Your task to perform on an android device: turn on improve location accuracy Image 0: 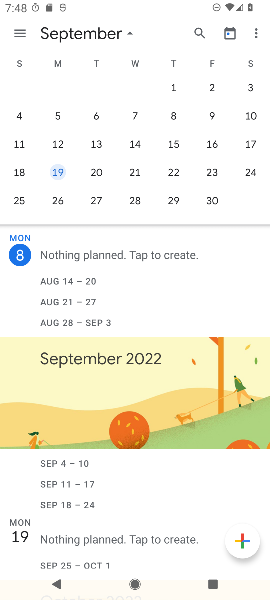
Step 0: press home button
Your task to perform on an android device: turn on improve location accuracy Image 1: 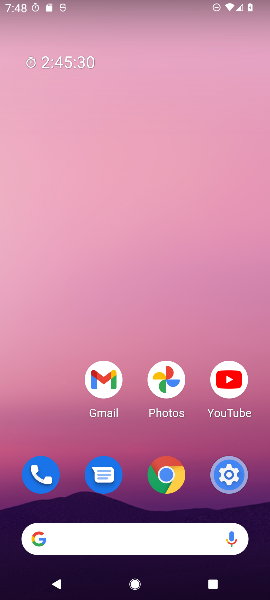
Step 1: drag from (68, 436) to (64, 178)
Your task to perform on an android device: turn on improve location accuracy Image 2: 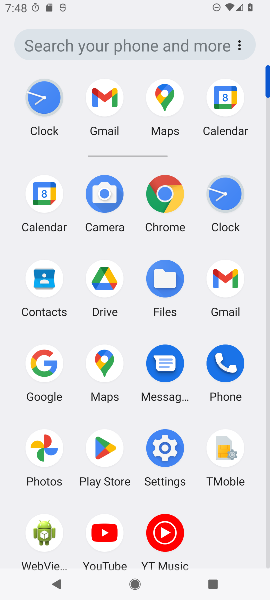
Step 2: click (167, 449)
Your task to perform on an android device: turn on improve location accuracy Image 3: 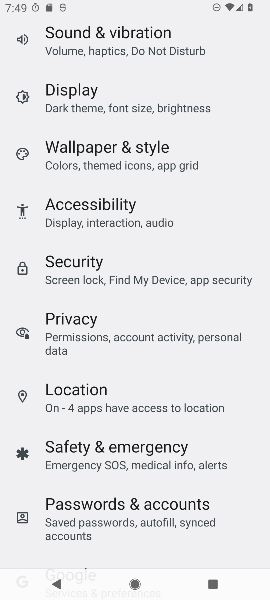
Step 3: drag from (255, 304) to (257, 372)
Your task to perform on an android device: turn on improve location accuracy Image 4: 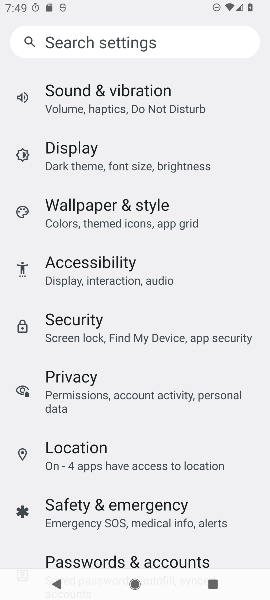
Step 4: drag from (254, 246) to (246, 310)
Your task to perform on an android device: turn on improve location accuracy Image 5: 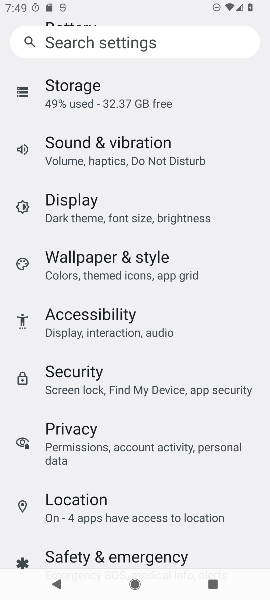
Step 5: drag from (256, 188) to (252, 292)
Your task to perform on an android device: turn on improve location accuracy Image 6: 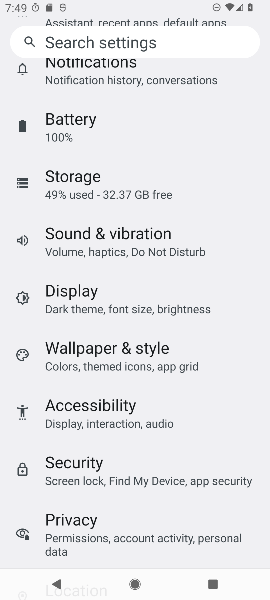
Step 6: drag from (244, 144) to (242, 249)
Your task to perform on an android device: turn on improve location accuracy Image 7: 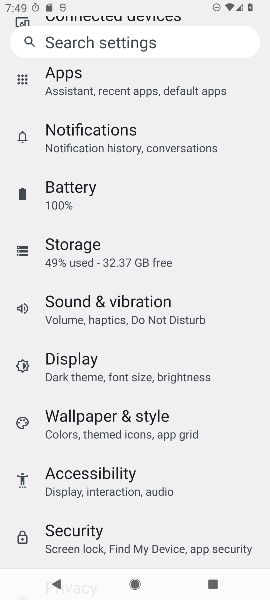
Step 7: drag from (243, 157) to (243, 275)
Your task to perform on an android device: turn on improve location accuracy Image 8: 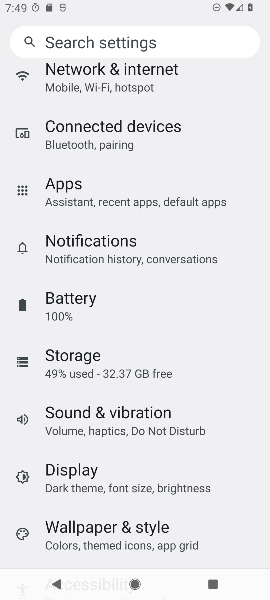
Step 8: drag from (247, 167) to (237, 304)
Your task to perform on an android device: turn on improve location accuracy Image 9: 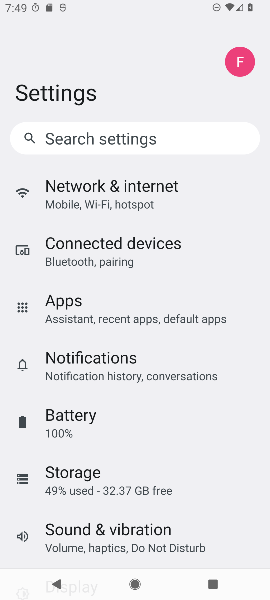
Step 9: drag from (232, 391) to (240, 319)
Your task to perform on an android device: turn on improve location accuracy Image 10: 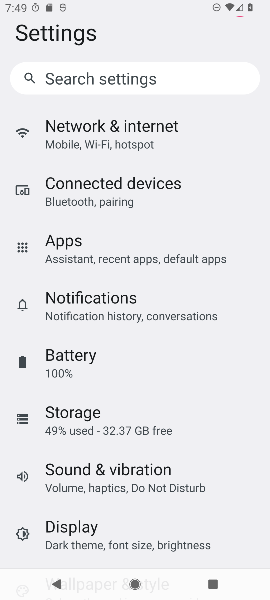
Step 10: drag from (236, 418) to (242, 297)
Your task to perform on an android device: turn on improve location accuracy Image 11: 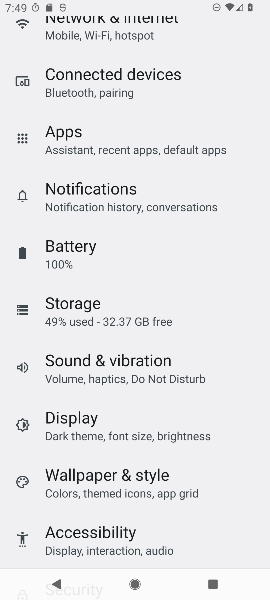
Step 11: drag from (233, 425) to (240, 313)
Your task to perform on an android device: turn on improve location accuracy Image 12: 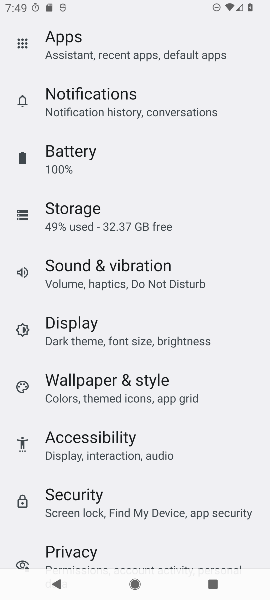
Step 12: drag from (226, 428) to (233, 321)
Your task to perform on an android device: turn on improve location accuracy Image 13: 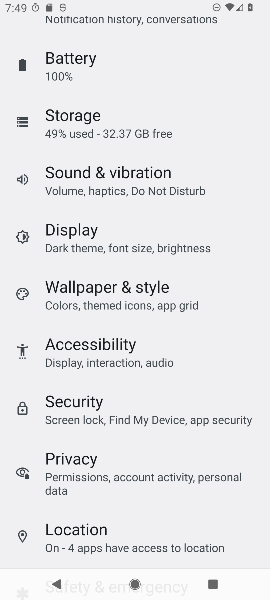
Step 13: drag from (226, 438) to (232, 323)
Your task to perform on an android device: turn on improve location accuracy Image 14: 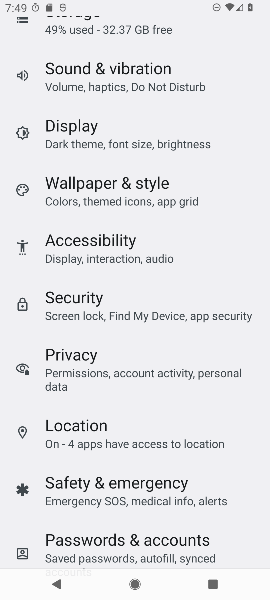
Step 14: drag from (231, 446) to (240, 314)
Your task to perform on an android device: turn on improve location accuracy Image 15: 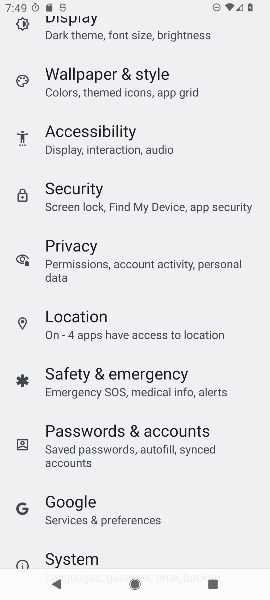
Step 15: drag from (245, 447) to (248, 349)
Your task to perform on an android device: turn on improve location accuracy Image 16: 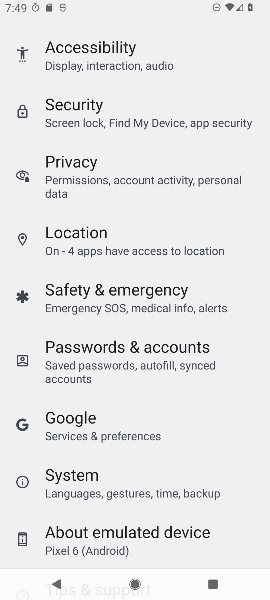
Step 16: drag from (231, 454) to (231, 372)
Your task to perform on an android device: turn on improve location accuracy Image 17: 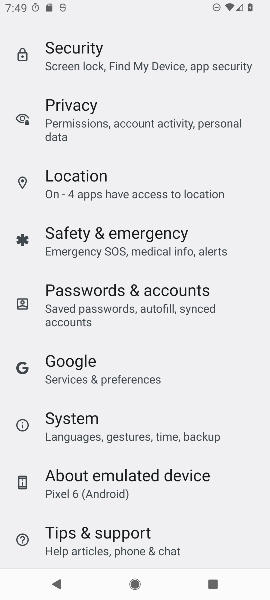
Step 17: click (227, 203)
Your task to perform on an android device: turn on improve location accuracy Image 18: 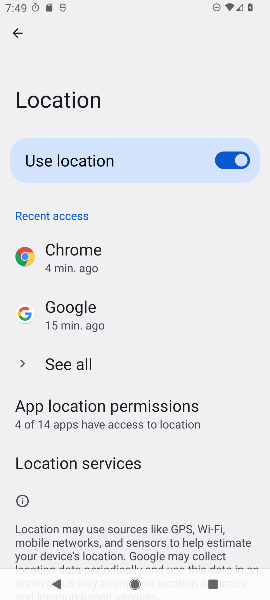
Step 18: click (126, 465)
Your task to perform on an android device: turn on improve location accuracy Image 19: 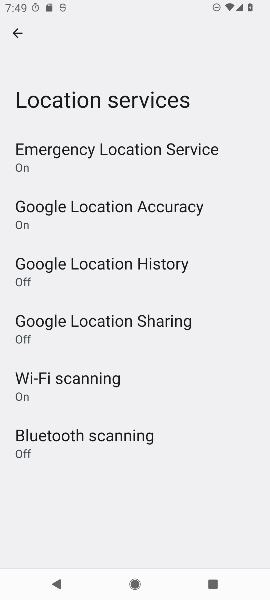
Step 19: click (92, 213)
Your task to perform on an android device: turn on improve location accuracy Image 20: 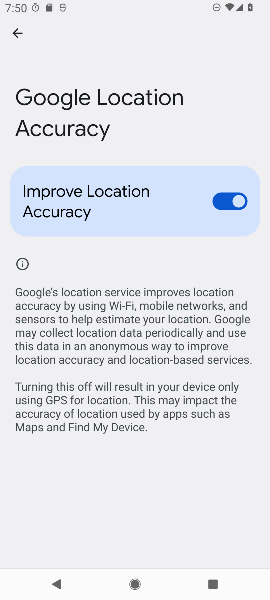
Step 20: task complete